Your task to perform on an android device: turn on location history Image 0: 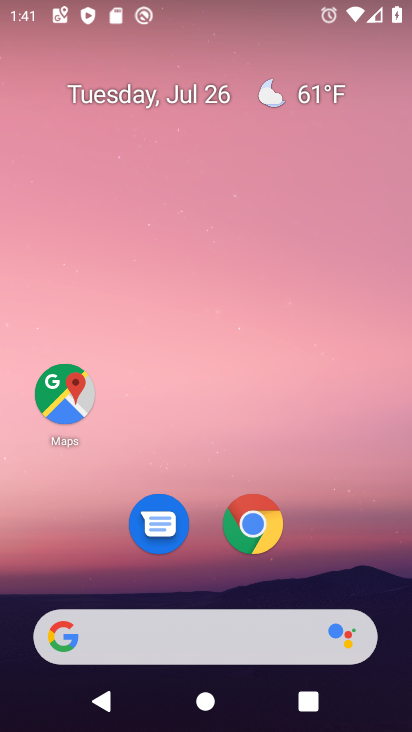
Step 0: drag from (184, 642) to (298, 214)
Your task to perform on an android device: turn on location history Image 1: 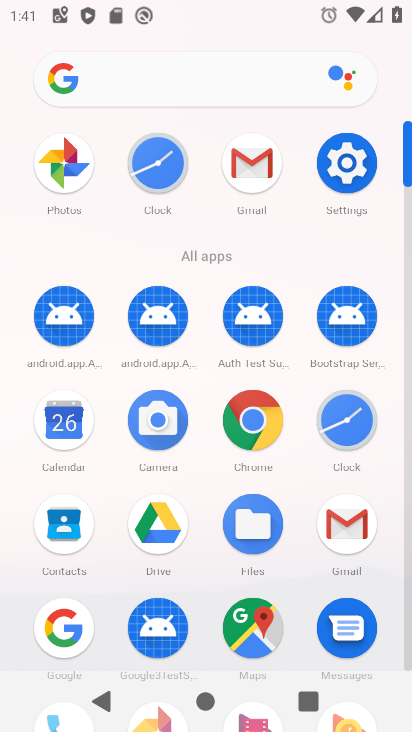
Step 1: click (248, 630)
Your task to perform on an android device: turn on location history Image 2: 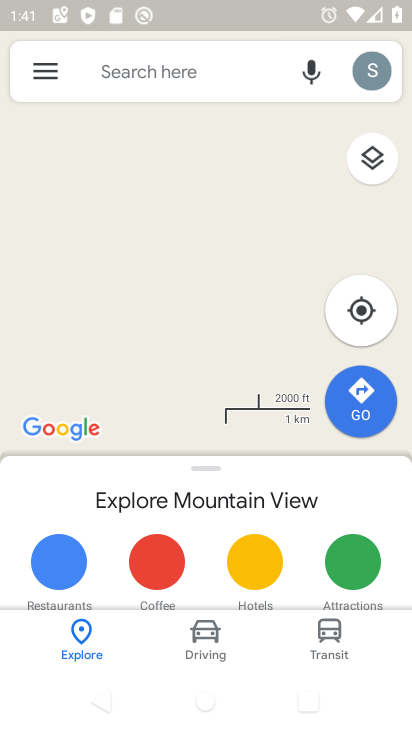
Step 2: click (44, 72)
Your task to perform on an android device: turn on location history Image 3: 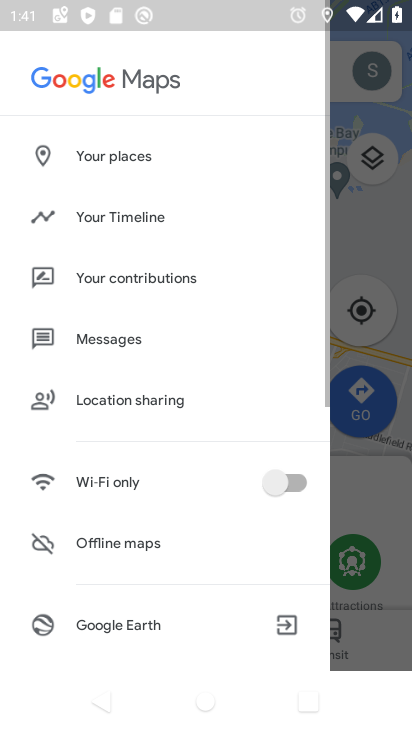
Step 3: click (119, 217)
Your task to perform on an android device: turn on location history Image 4: 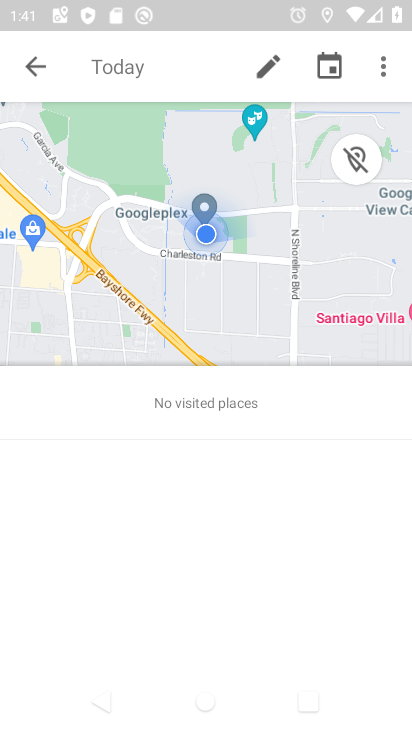
Step 4: click (381, 73)
Your task to perform on an android device: turn on location history Image 5: 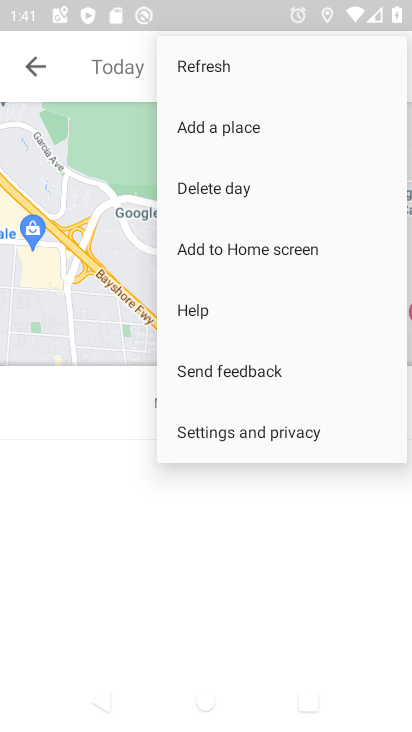
Step 5: click (236, 431)
Your task to perform on an android device: turn on location history Image 6: 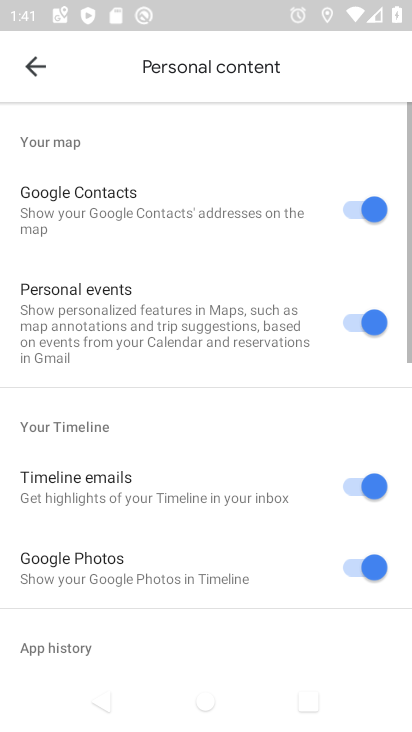
Step 6: drag from (205, 618) to (340, 145)
Your task to perform on an android device: turn on location history Image 7: 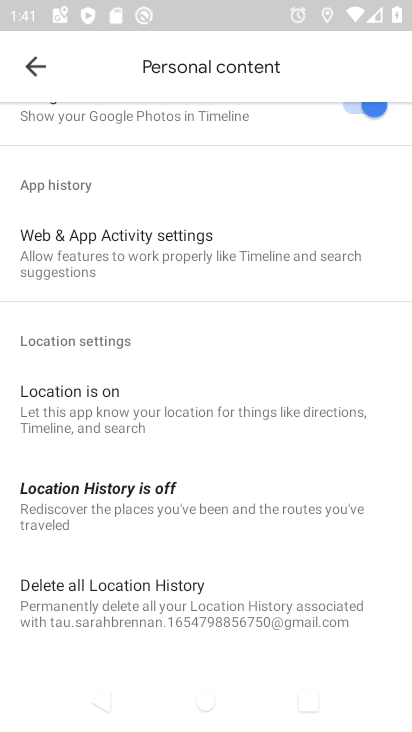
Step 7: click (142, 500)
Your task to perform on an android device: turn on location history Image 8: 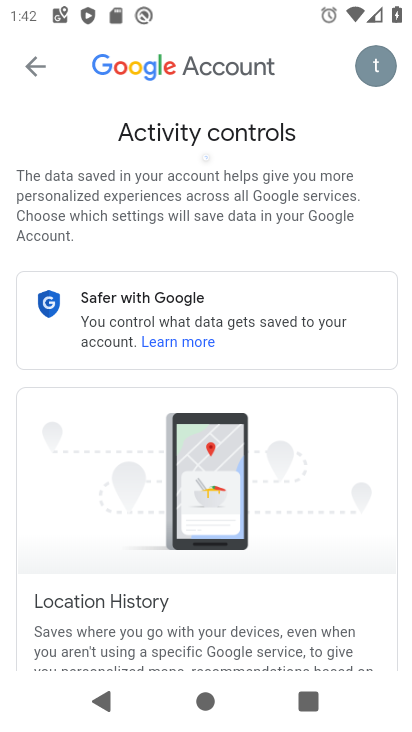
Step 8: task complete